Your task to perform on an android device: check storage Image 0: 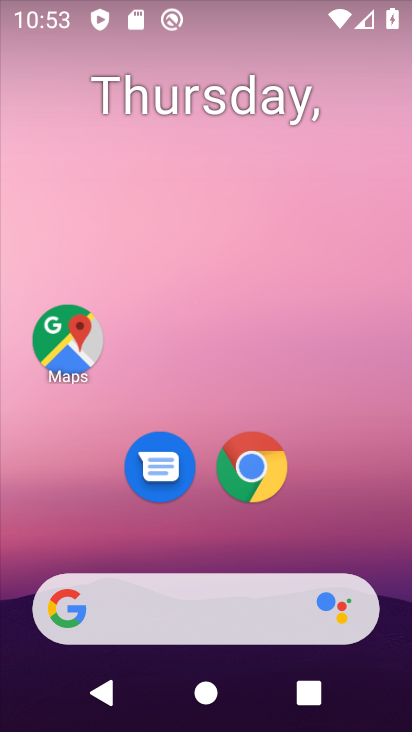
Step 0: drag from (164, 540) to (222, 247)
Your task to perform on an android device: check storage Image 1: 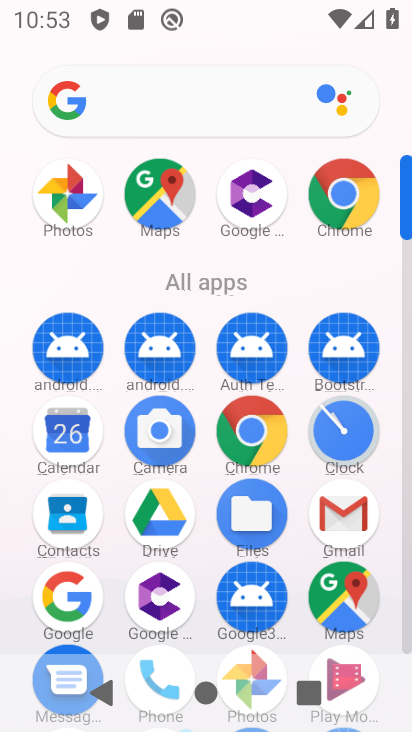
Step 1: drag from (204, 283) to (200, 77)
Your task to perform on an android device: check storage Image 2: 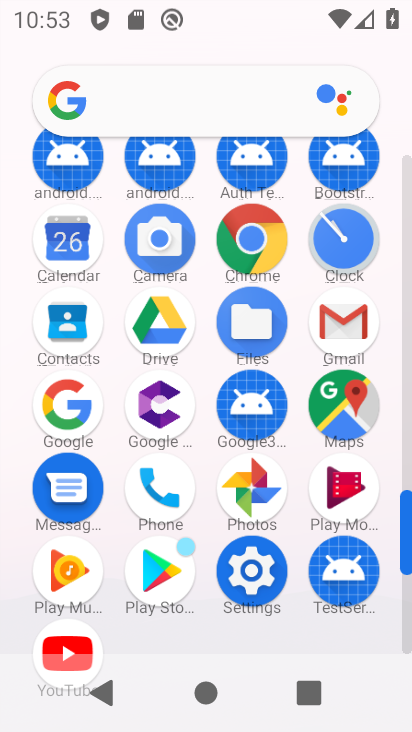
Step 2: click (258, 576)
Your task to perform on an android device: check storage Image 3: 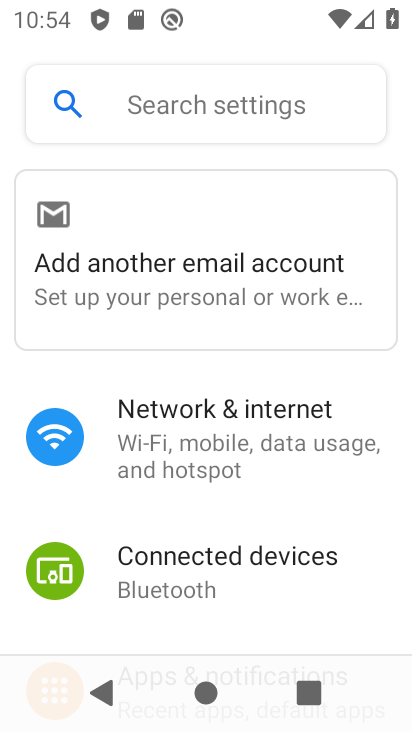
Step 3: drag from (210, 528) to (338, 136)
Your task to perform on an android device: check storage Image 4: 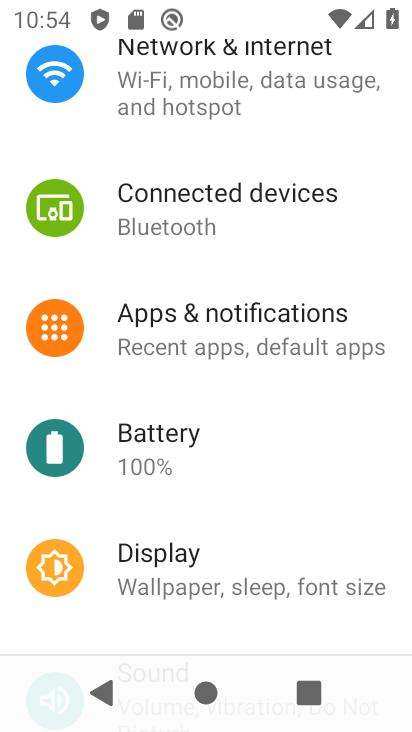
Step 4: drag from (178, 499) to (255, 170)
Your task to perform on an android device: check storage Image 5: 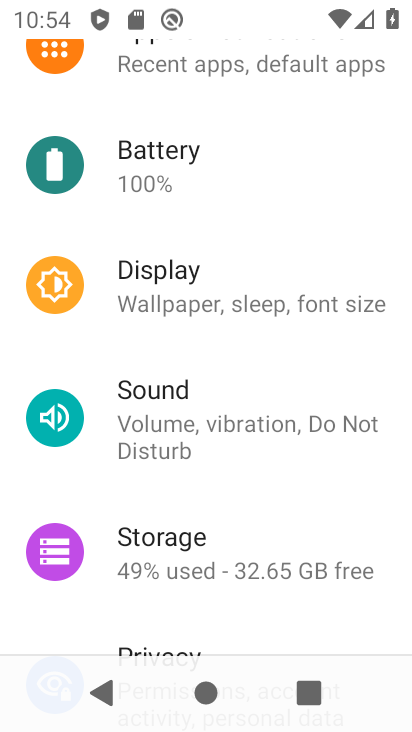
Step 5: click (234, 574)
Your task to perform on an android device: check storage Image 6: 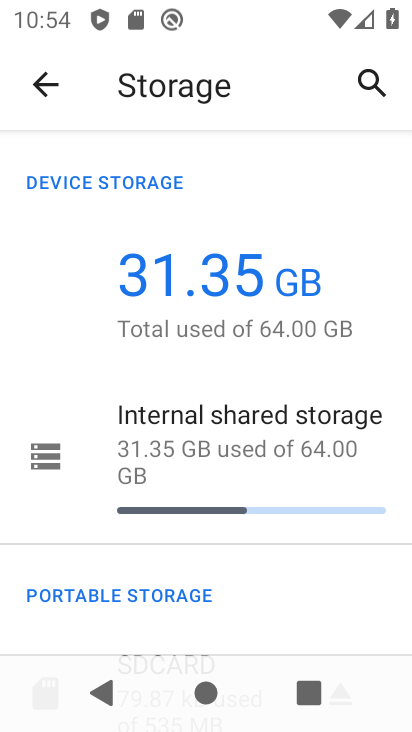
Step 6: click (244, 409)
Your task to perform on an android device: check storage Image 7: 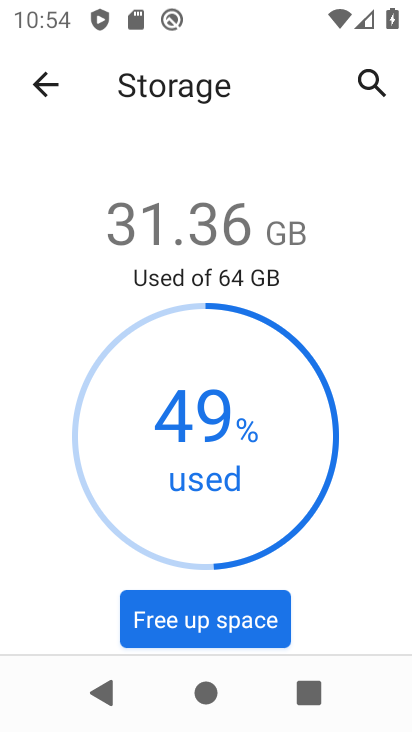
Step 7: task complete